Your task to perform on an android device: Open calendar and show me the fourth week of next month Image 0: 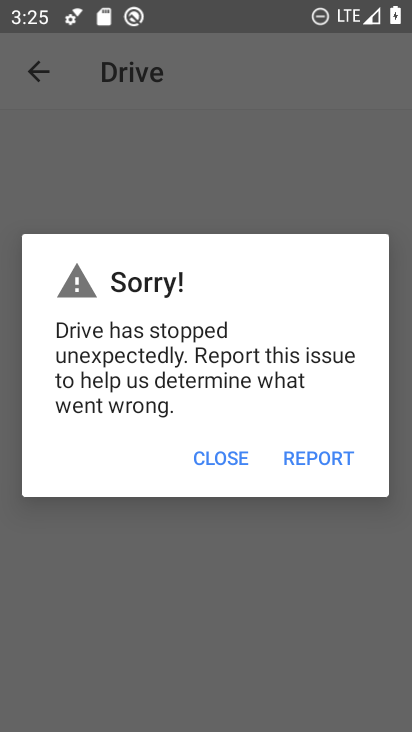
Step 0: press home button
Your task to perform on an android device: Open calendar and show me the fourth week of next month Image 1: 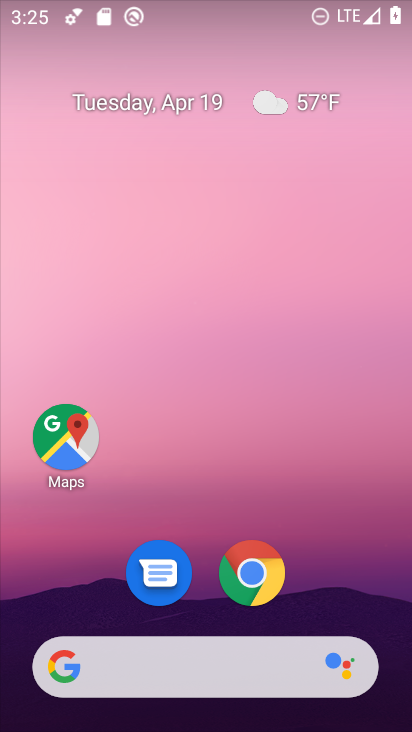
Step 1: drag from (348, 560) to (365, 56)
Your task to perform on an android device: Open calendar and show me the fourth week of next month Image 2: 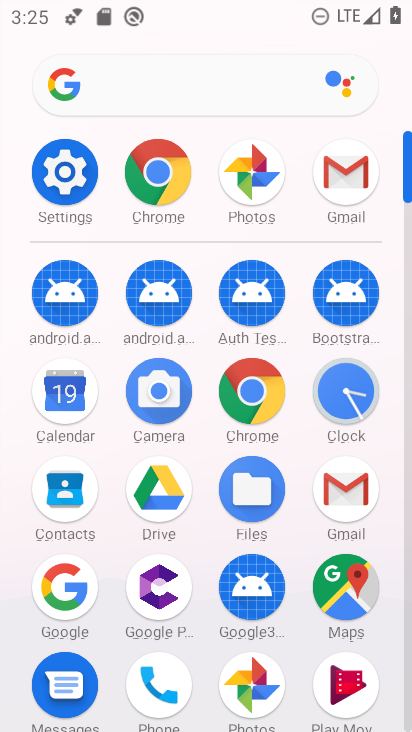
Step 2: click (62, 397)
Your task to perform on an android device: Open calendar and show me the fourth week of next month Image 3: 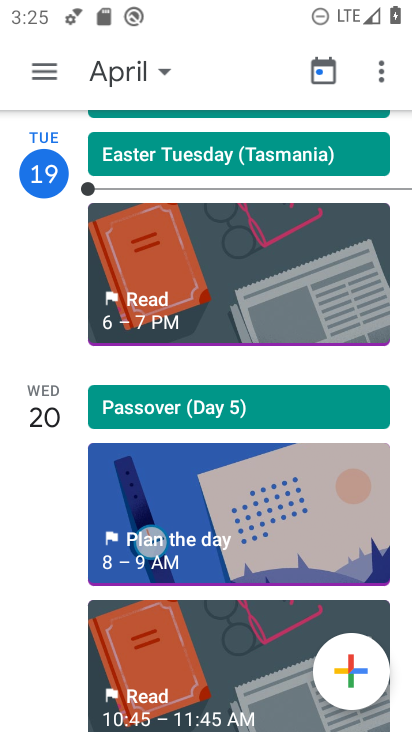
Step 3: click (162, 68)
Your task to perform on an android device: Open calendar and show me the fourth week of next month Image 4: 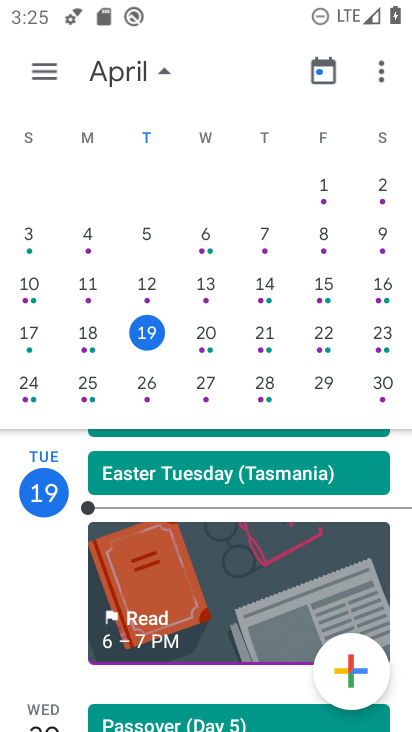
Step 4: drag from (264, 245) to (2, 71)
Your task to perform on an android device: Open calendar and show me the fourth week of next month Image 5: 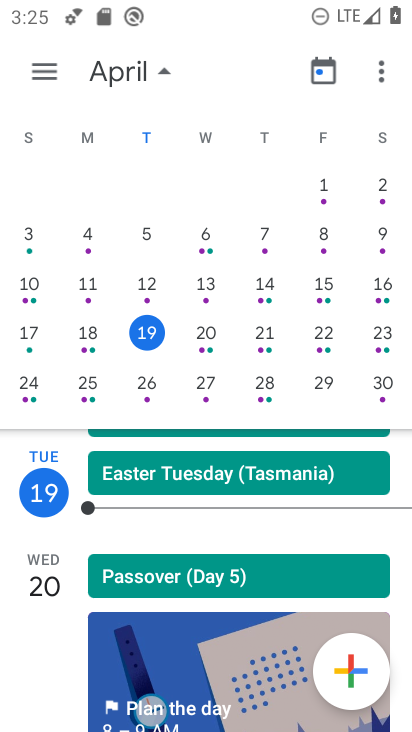
Step 5: drag from (266, 321) to (9, 284)
Your task to perform on an android device: Open calendar and show me the fourth week of next month Image 6: 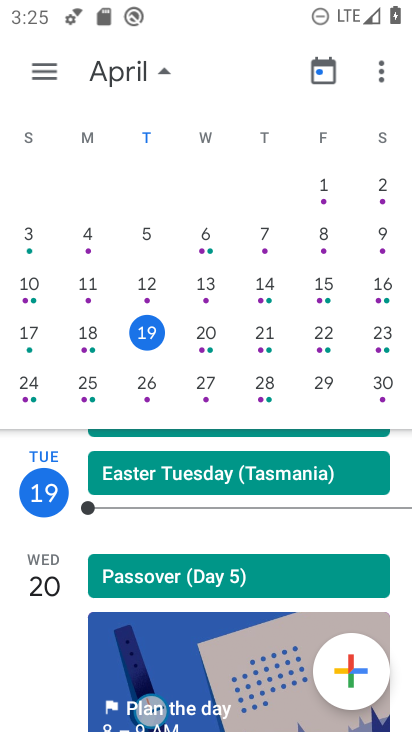
Step 6: drag from (349, 261) to (46, 255)
Your task to perform on an android device: Open calendar and show me the fourth week of next month Image 7: 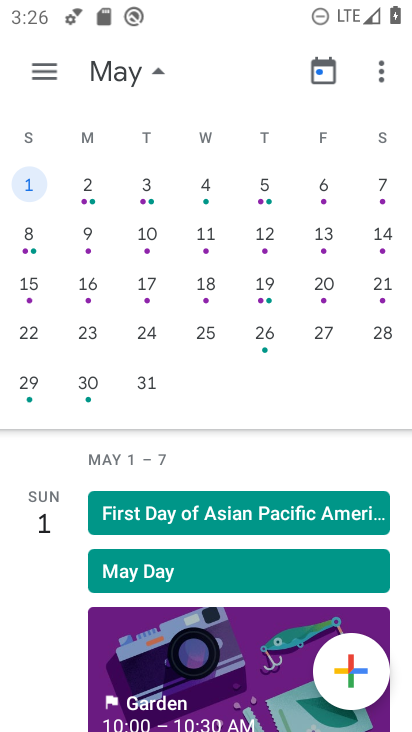
Step 7: click (36, 69)
Your task to perform on an android device: Open calendar and show me the fourth week of next month Image 8: 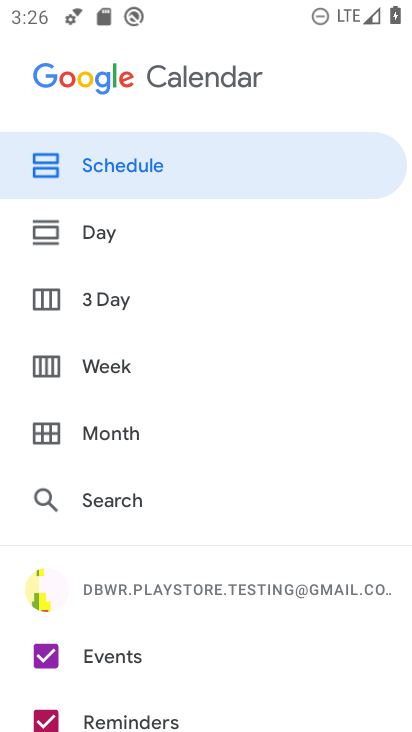
Step 8: click (58, 367)
Your task to perform on an android device: Open calendar and show me the fourth week of next month Image 9: 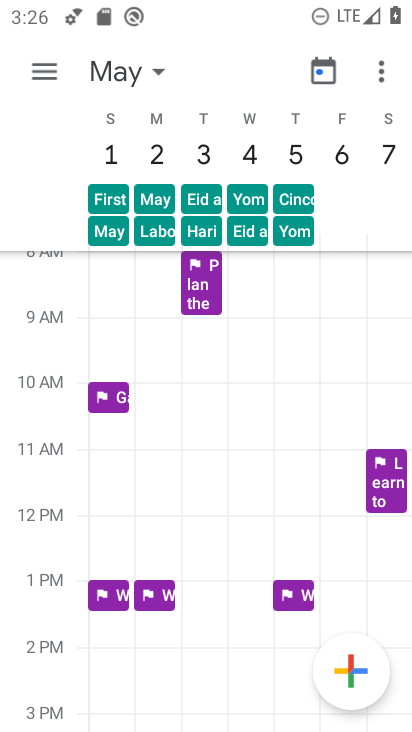
Step 9: task complete